Your task to perform on an android device: turn on location history Image 0: 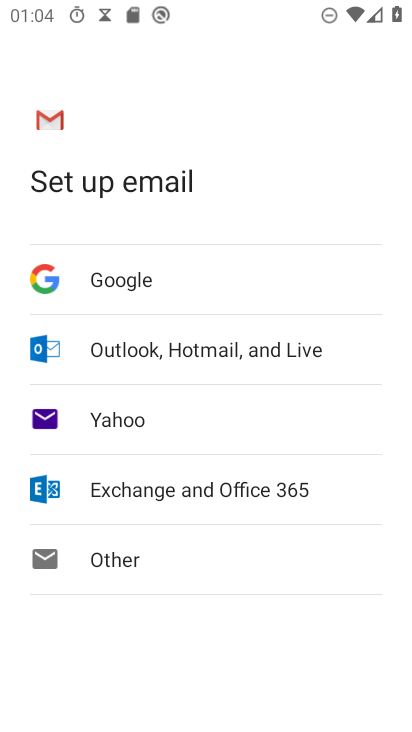
Step 0: press home button
Your task to perform on an android device: turn on location history Image 1: 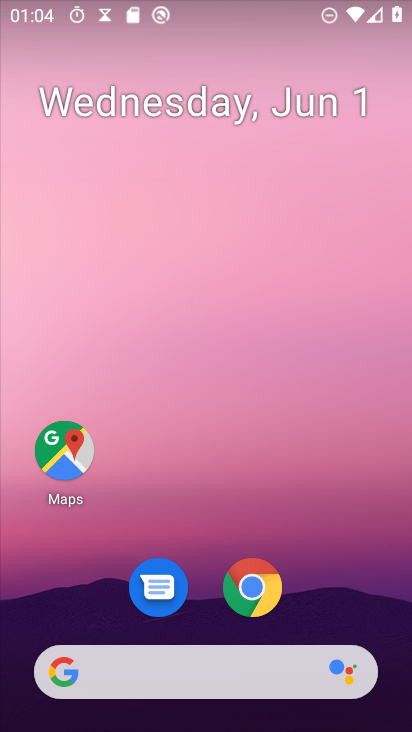
Step 1: drag from (321, 526) to (318, 1)
Your task to perform on an android device: turn on location history Image 2: 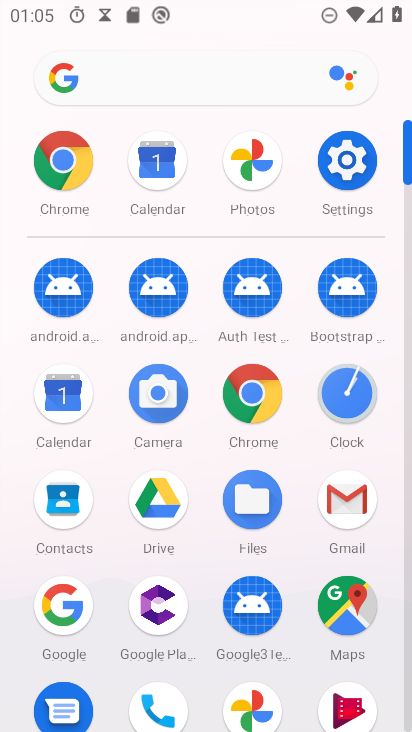
Step 2: click (347, 147)
Your task to perform on an android device: turn on location history Image 3: 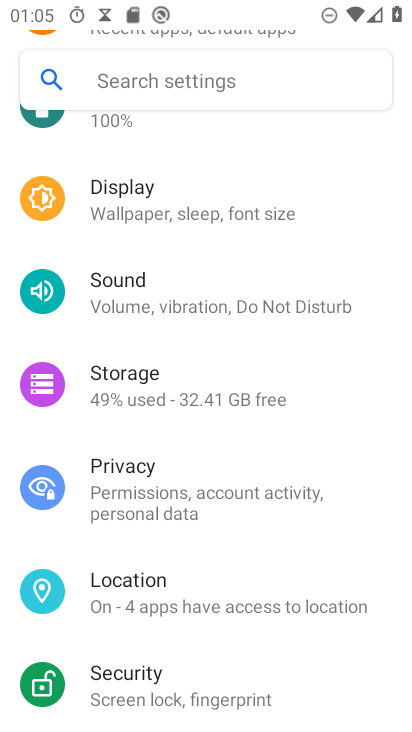
Step 3: click (214, 588)
Your task to perform on an android device: turn on location history Image 4: 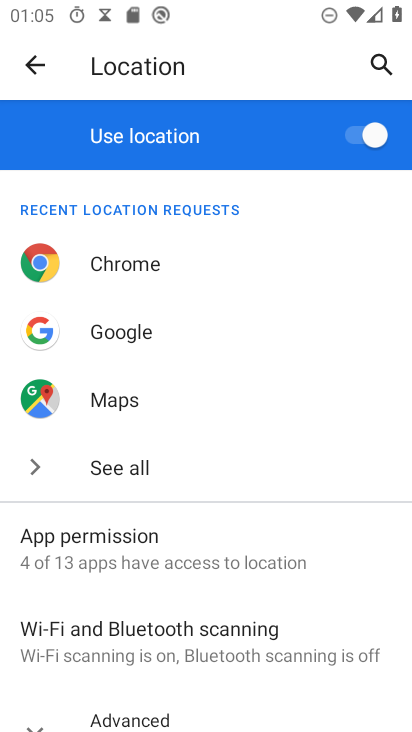
Step 4: click (162, 701)
Your task to perform on an android device: turn on location history Image 5: 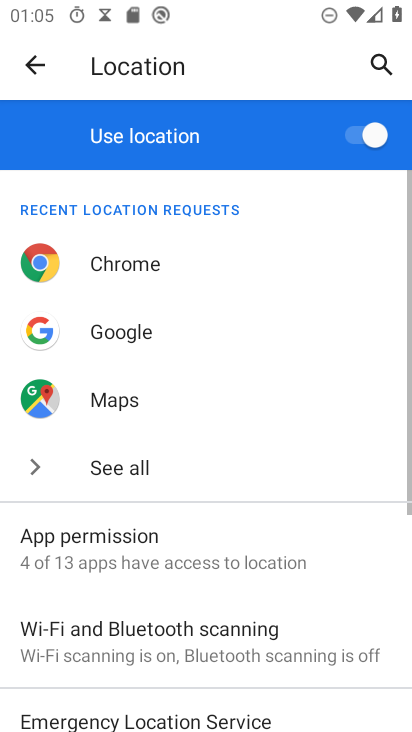
Step 5: drag from (170, 679) to (143, 183)
Your task to perform on an android device: turn on location history Image 6: 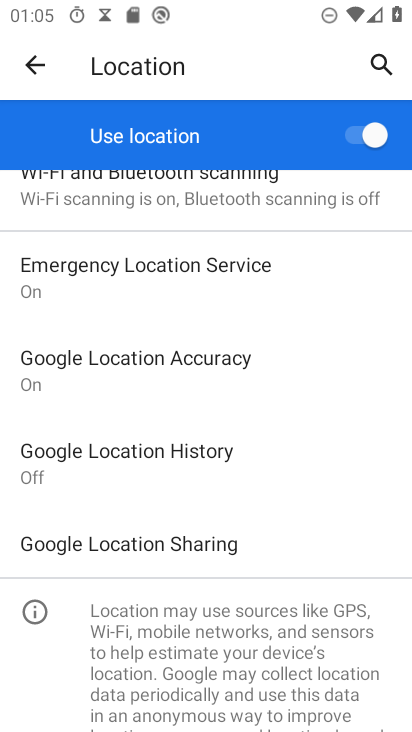
Step 6: click (209, 446)
Your task to perform on an android device: turn on location history Image 7: 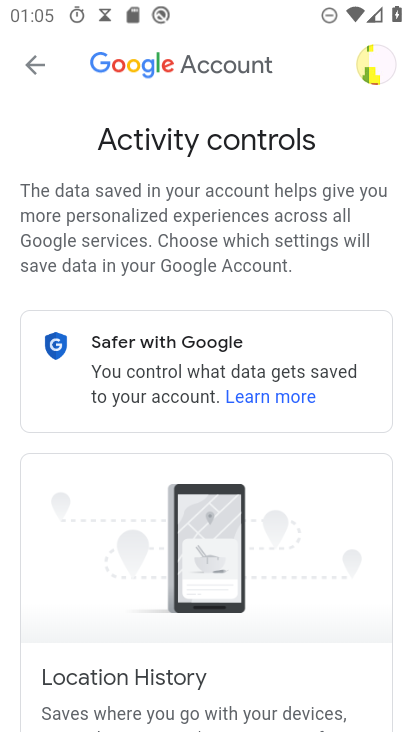
Step 7: drag from (277, 586) to (281, 161)
Your task to perform on an android device: turn on location history Image 8: 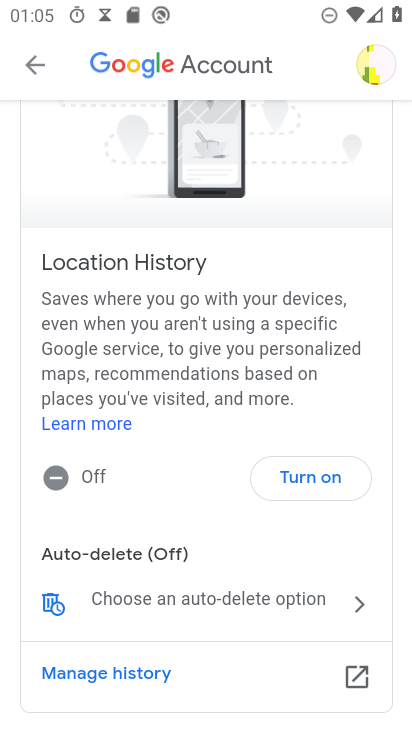
Step 8: click (319, 478)
Your task to perform on an android device: turn on location history Image 9: 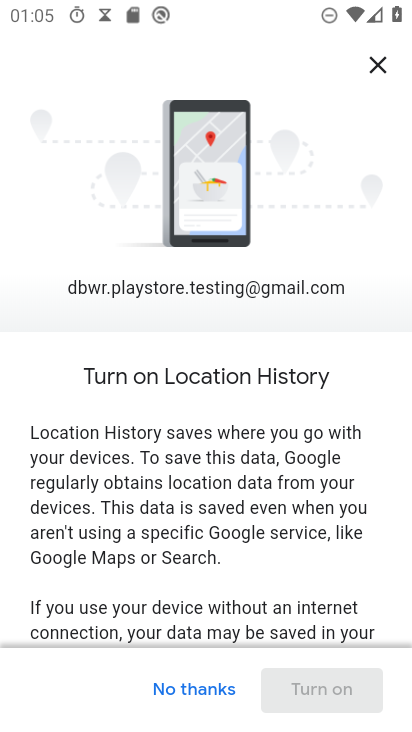
Step 9: drag from (221, 527) to (242, 58)
Your task to perform on an android device: turn on location history Image 10: 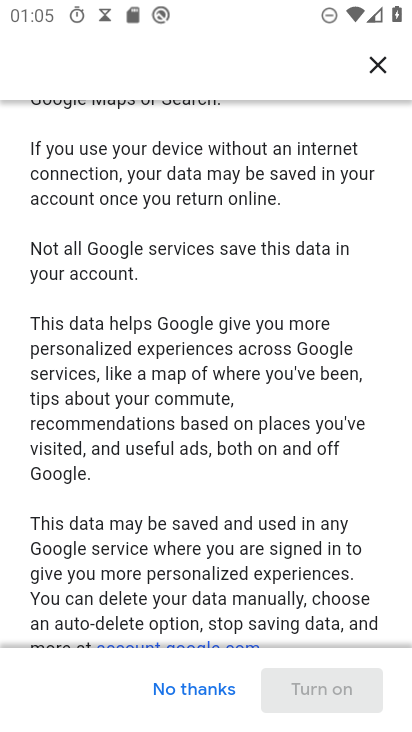
Step 10: drag from (307, 586) to (303, 84)
Your task to perform on an android device: turn on location history Image 11: 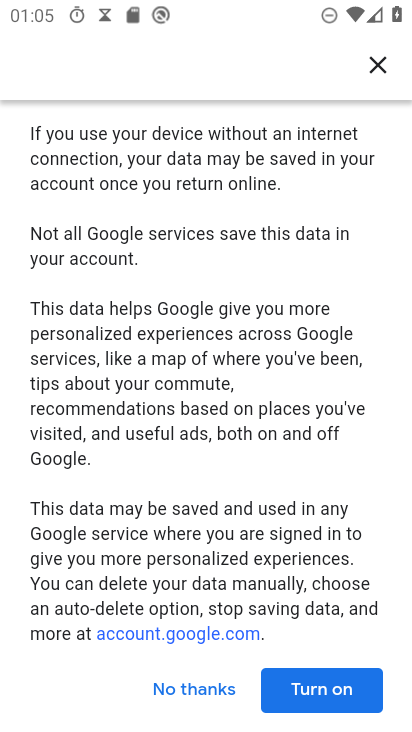
Step 11: click (355, 678)
Your task to perform on an android device: turn on location history Image 12: 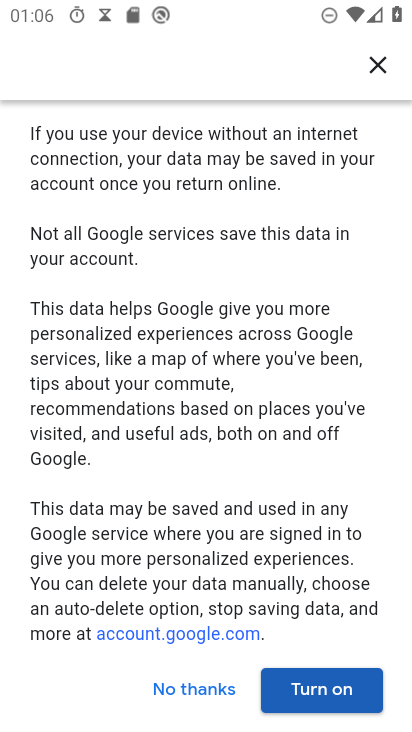
Step 12: click (352, 677)
Your task to perform on an android device: turn on location history Image 13: 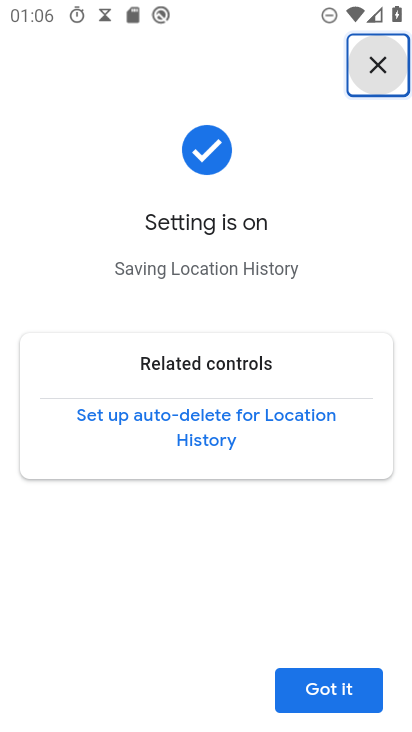
Step 13: task complete